Your task to perform on an android device: visit the assistant section in the google photos Image 0: 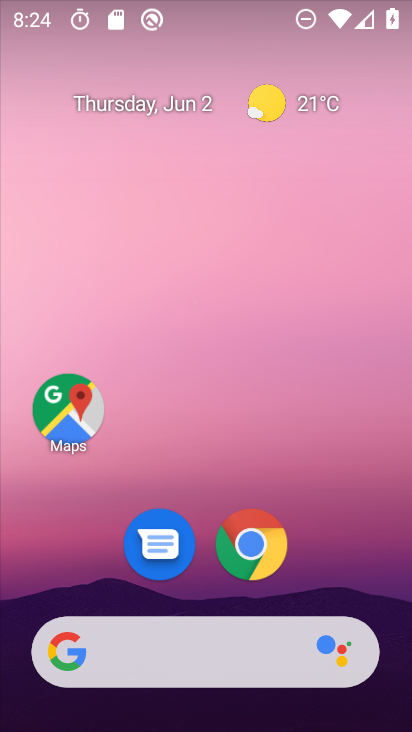
Step 0: drag from (378, 587) to (350, 227)
Your task to perform on an android device: visit the assistant section in the google photos Image 1: 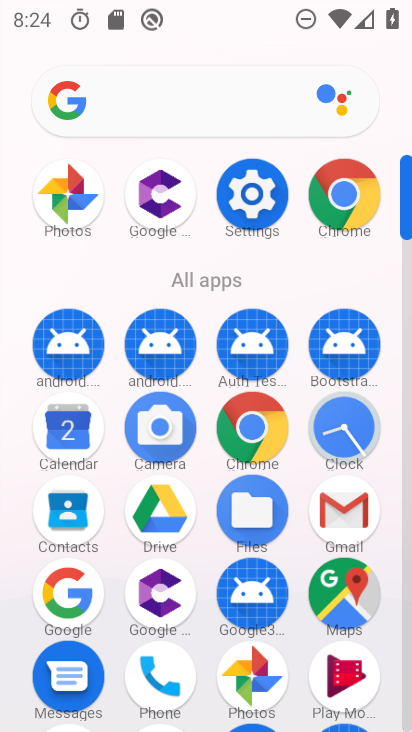
Step 1: click (54, 201)
Your task to perform on an android device: visit the assistant section in the google photos Image 2: 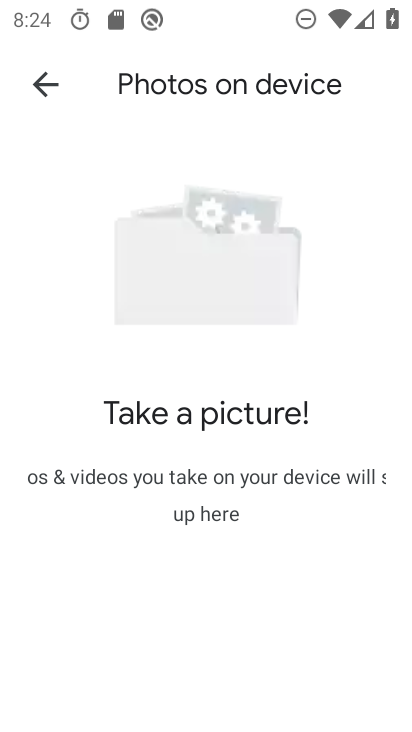
Step 2: click (38, 87)
Your task to perform on an android device: visit the assistant section in the google photos Image 3: 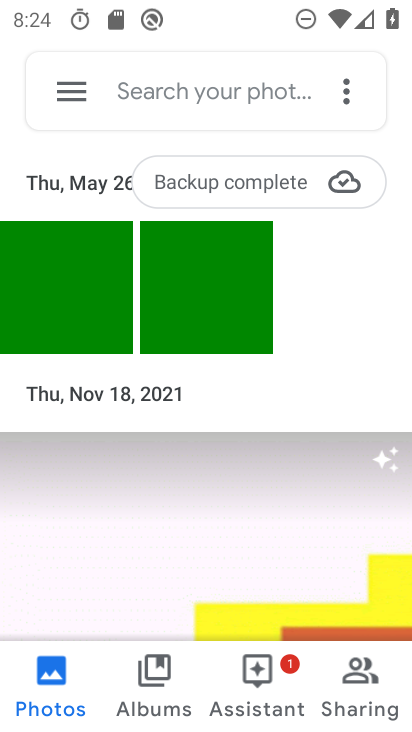
Step 3: click (255, 694)
Your task to perform on an android device: visit the assistant section in the google photos Image 4: 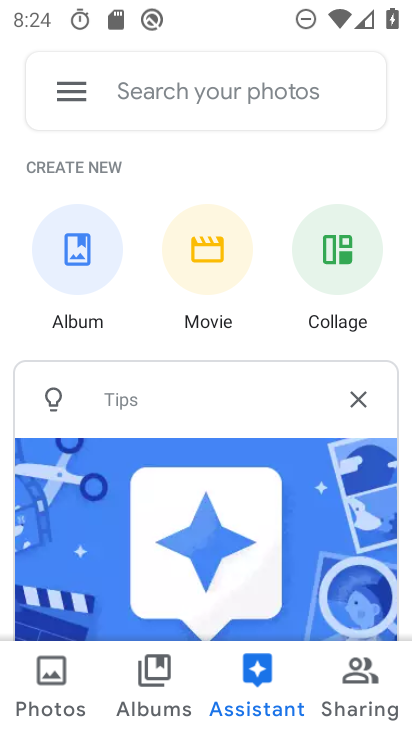
Step 4: task complete